Your task to perform on an android device: set the stopwatch Image 0: 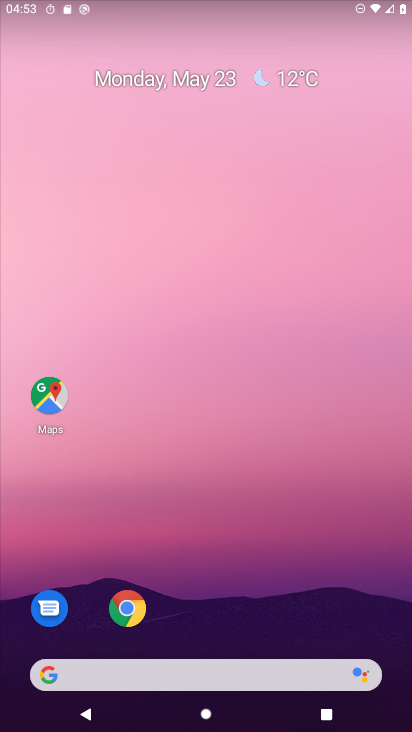
Step 0: drag from (262, 362) to (110, 22)
Your task to perform on an android device: set the stopwatch Image 1: 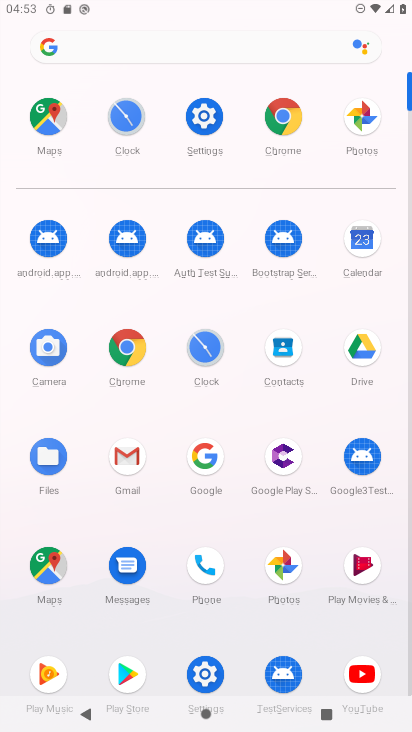
Step 1: click (112, 100)
Your task to perform on an android device: set the stopwatch Image 2: 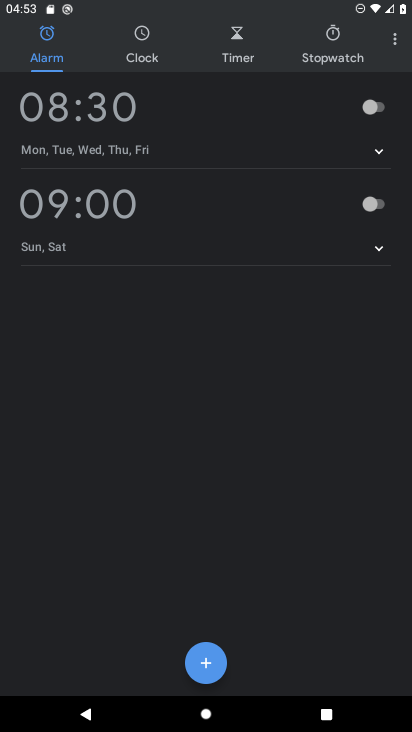
Step 2: click (330, 53)
Your task to perform on an android device: set the stopwatch Image 3: 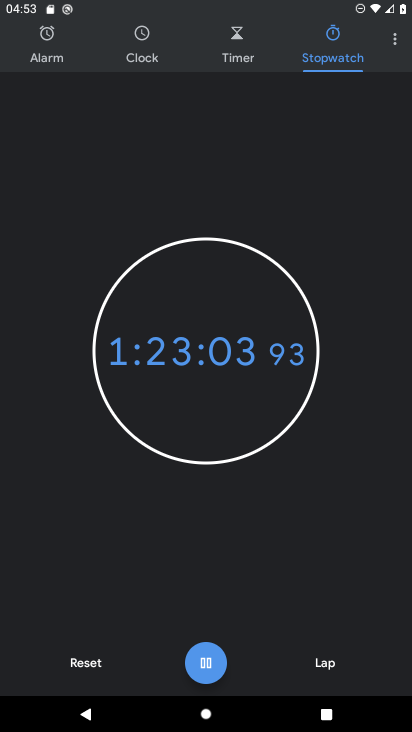
Step 3: click (67, 663)
Your task to perform on an android device: set the stopwatch Image 4: 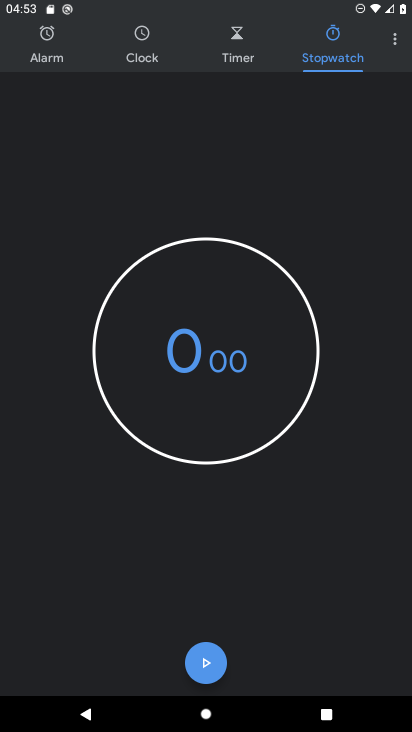
Step 4: click (208, 666)
Your task to perform on an android device: set the stopwatch Image 5: 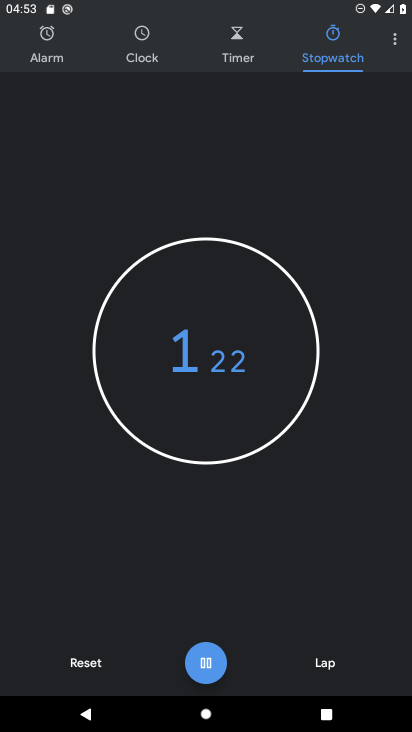
Step 5: task complete